Your task to perform on an android device: turn off improve location accuracy Image 0: 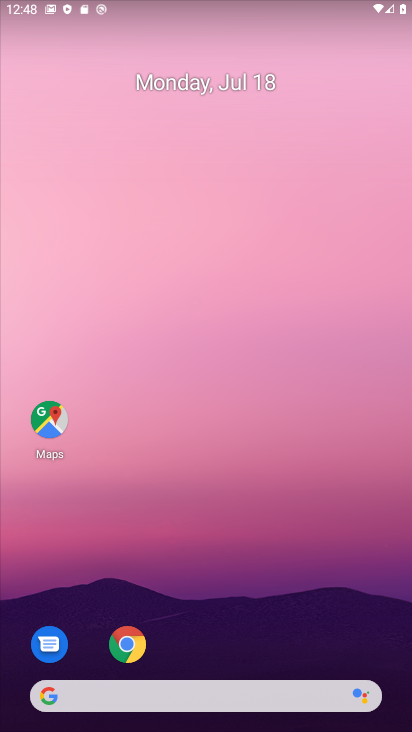
Step 0: drag from (252, 656) to (284, 21)
Your task to perform on an android device: turn off improve location accuracy Image 1: 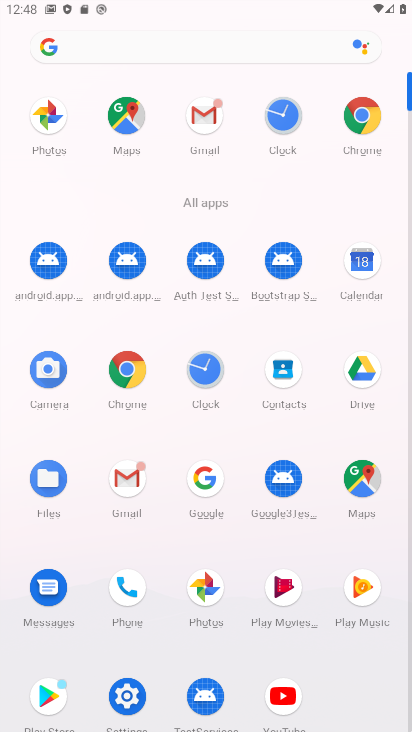
Step 1: click (122, 691)
Your task to perform on an android device: turn off improve location accuracy Image 2: 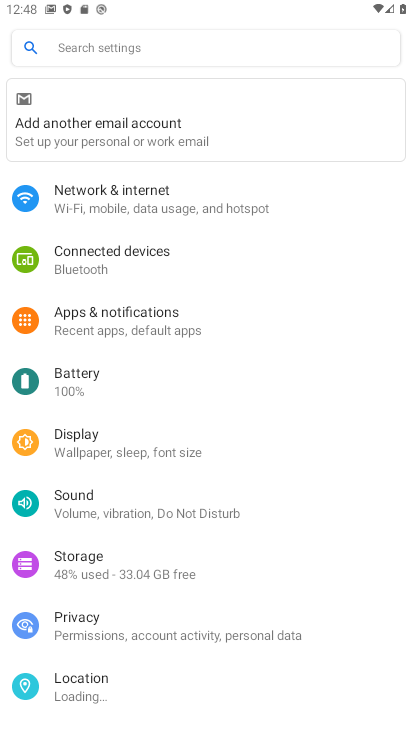
Step 2: click (114, 683)
Your task to perform on an android device: turn off improve location accuracy Image 3: 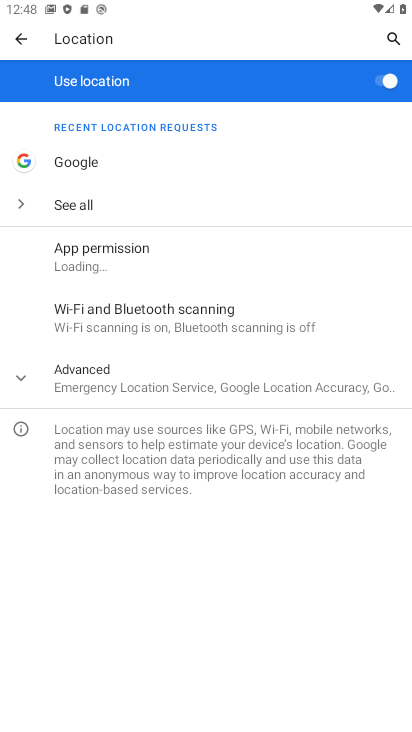
Step 3: click (249, 363)
Your task to perform on an android device: turn off improve location accuracy Image 4: 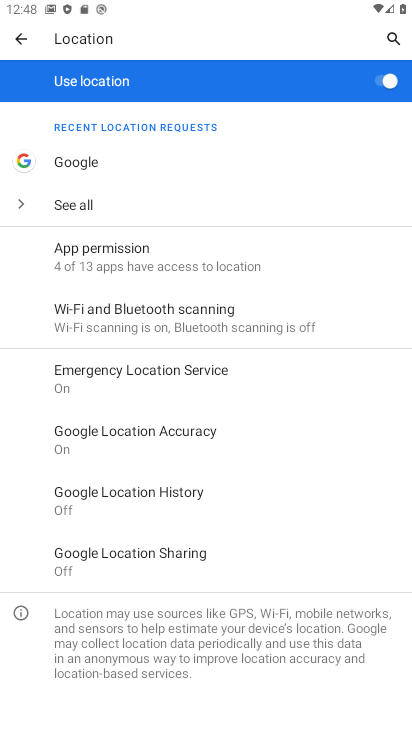
Step 4: click (188, 424)
Your task to perform on an android device: turn off improve location accuracy Image 5: 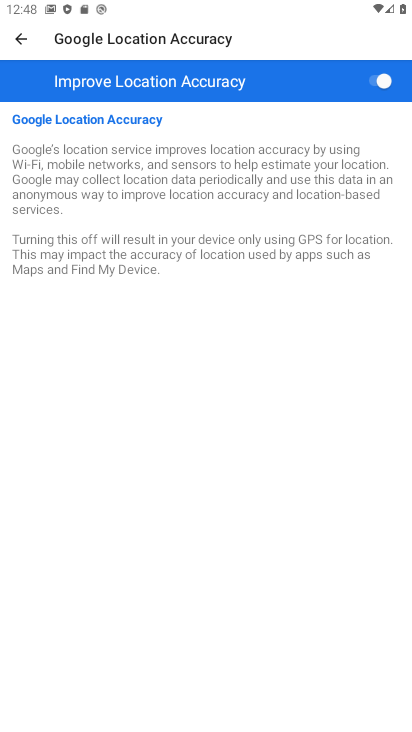
Step 5: click (376, 81)
Your task to perform on an android device: turn off improve location accuracy Image 6: 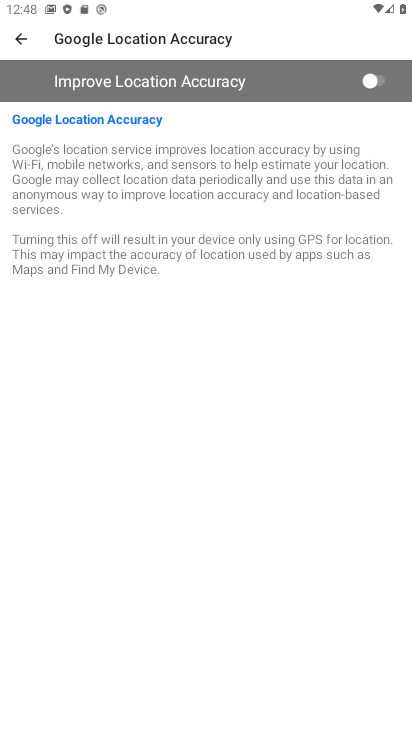
Step 6: task complete